Your task to perform on an android device: Do I have any events tomorrow? Image 0: 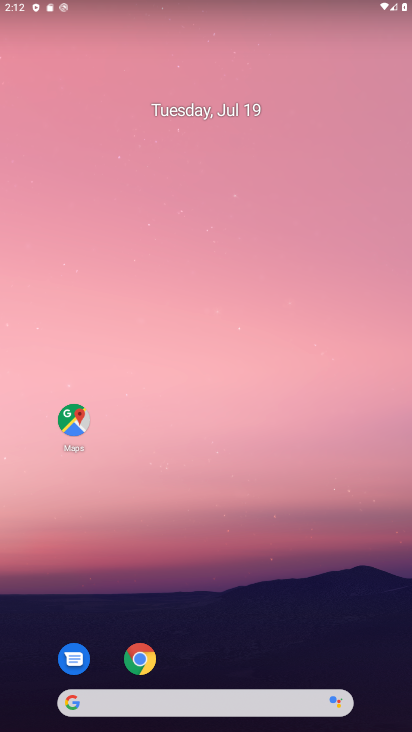
Step 0: drag from (342, 624) to (281, 164)
Your task to perform on an android device: Do I have any events tomorrow? Image 1: 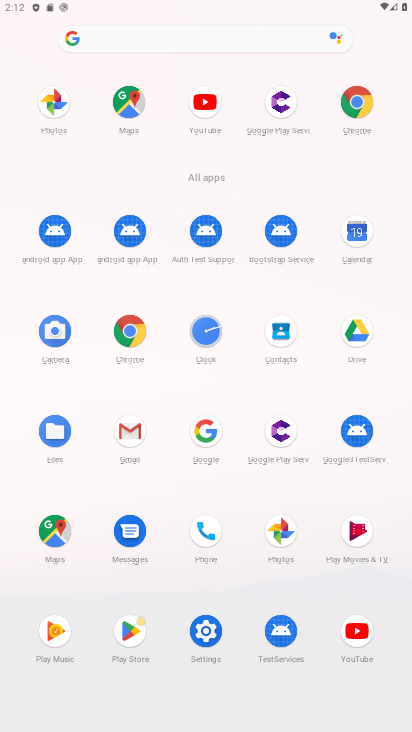
Step 1: click (356, 232)
Your task to perform on an android device: Do I have any events tomorrow? Image 2: 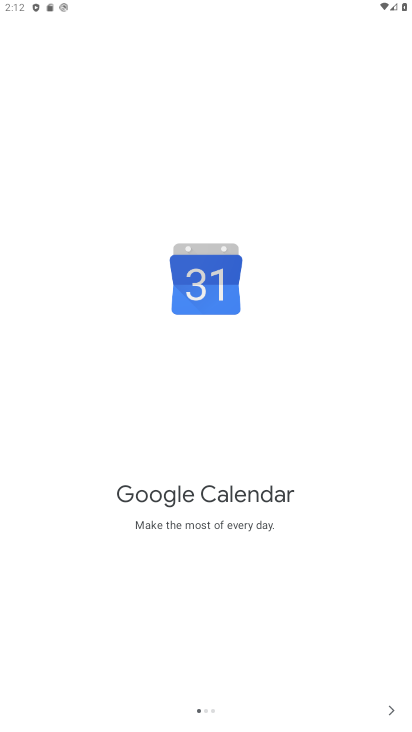
Step 2: click (387, 710)
Your task to perform on an android device: Do I have any events tomorrow? Image 3: 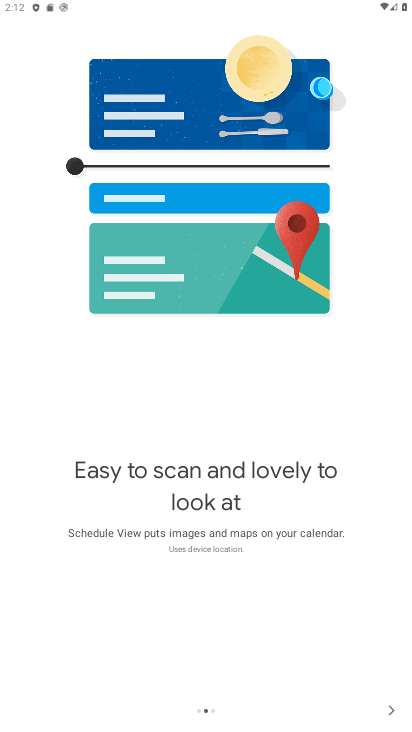
Step 3: click (391, 710)
Your task to perform on an android device: Do I have any events tomorrow? Image 4: 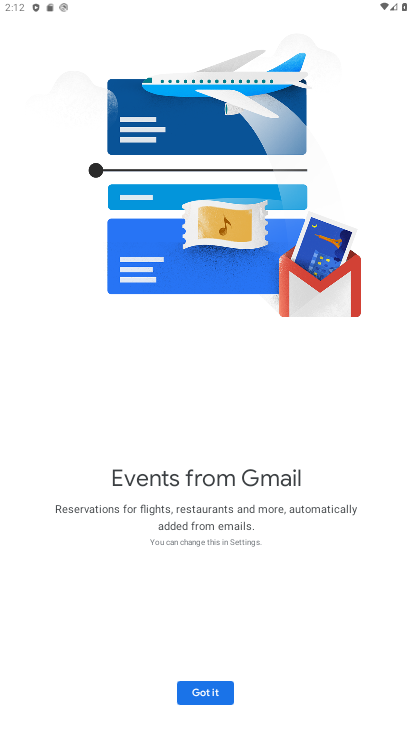
Step 4: click (194, 696)
Your task to perform on an android device: Do I have any events tomorrow? Image 5: 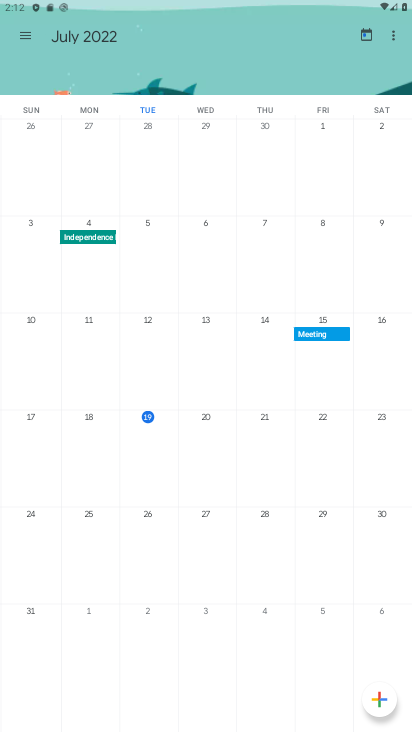
Step 5: click (25, 37)
Your task to perform on an android device: Do I have any events tomorrow? Image 6: 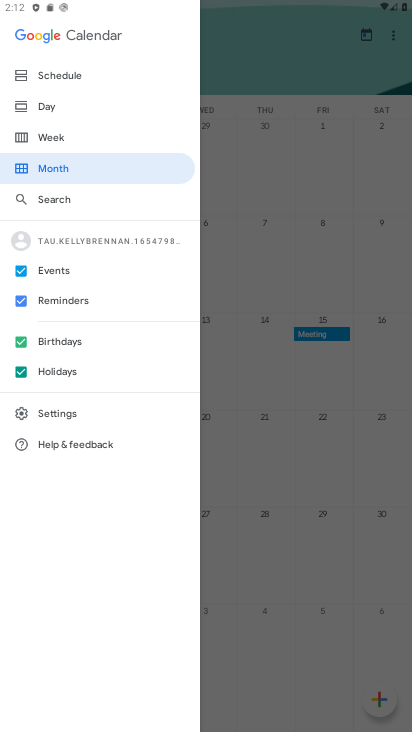
Step 6: click (16, 369)
Your task to perform on an android device: Do I have any events tomorrow? Image 7: 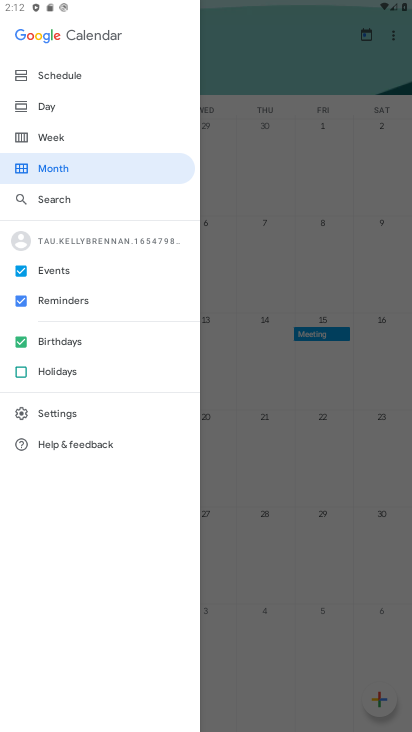
Step 7: click (20, 341)
Your task to perform on an android device: Do I have any events tomorrow? Image 8: 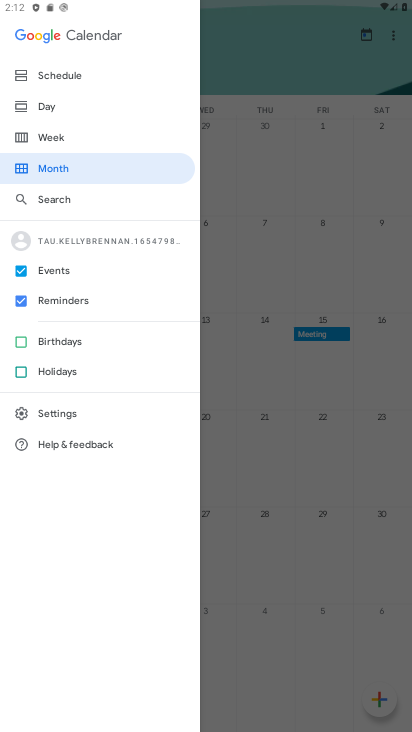
Step 8: click (16, 302)
Your task to perform on an android device: Do I have any events tomorrow? Image 9: 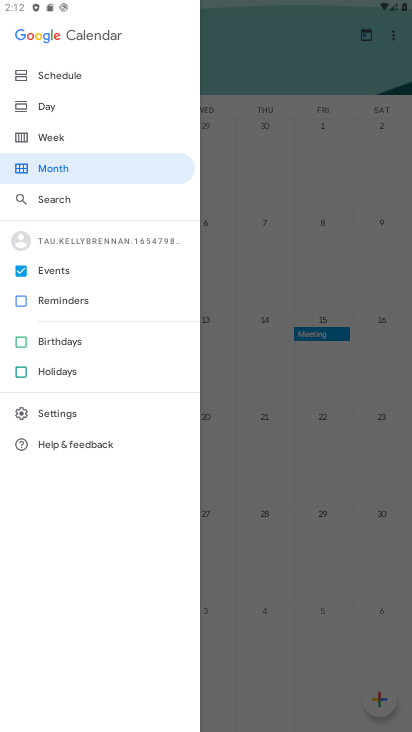
Step 9: click (55, 106)
Your task to perform on an android device: Do I have any events tomorrow? Image 10: 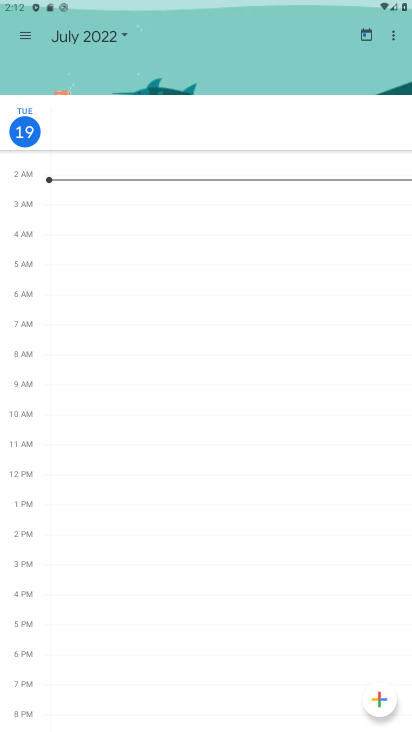
Step 10: task complete